Your task to perform on an android device: What's the weather today? Image 0: 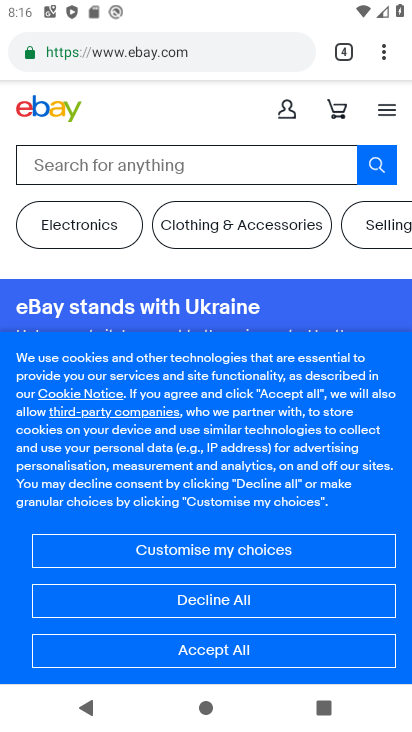
Step 0: press home button
Your task to perform on an android device: What's the weather today? Image 1: 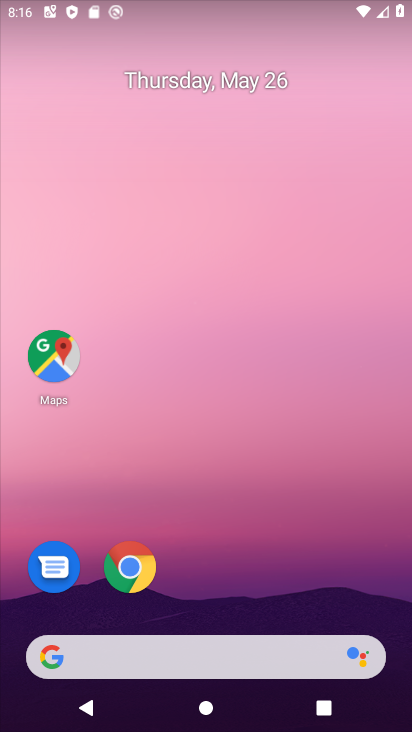
Step 1: click (57, 661)
Your task to perform on an android device: What's the weather today? Image 2: 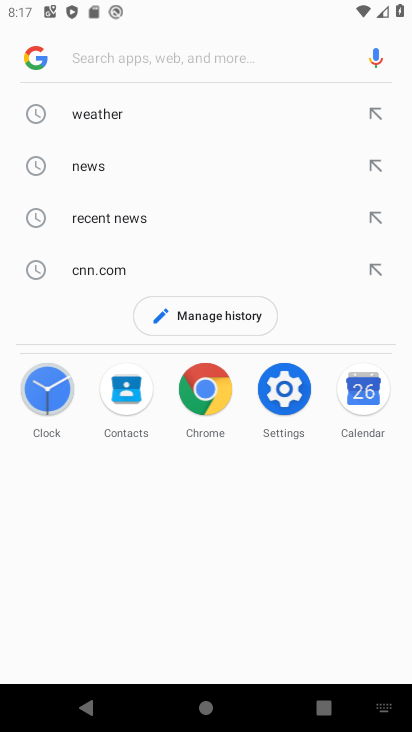
Step 2: click (103, 114)
Your task to perform on an android device: What's the weather today? Image 3: 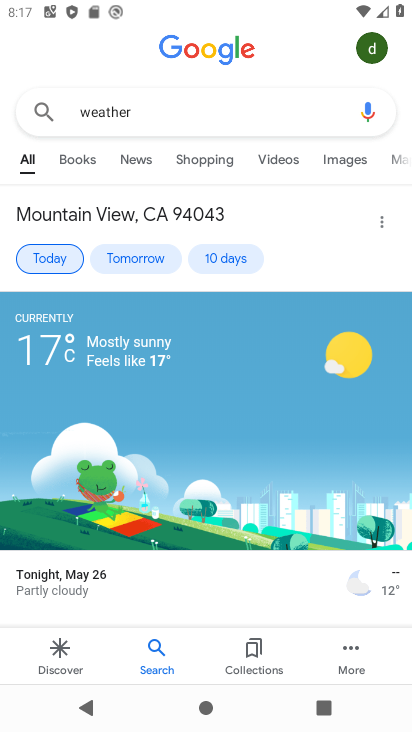
Step 3: task complete